Your task to perform on an android device: delete browsing data in the chrome app Image 0: 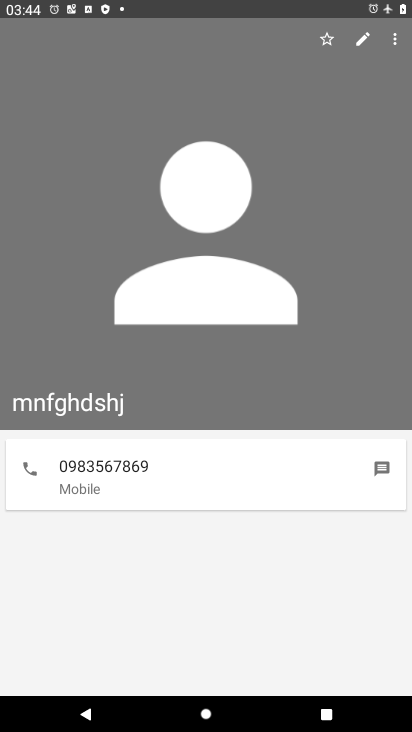
Step 0: press home button
Your task to perform on an android device: delete browsing data in the chrome app Image 1: 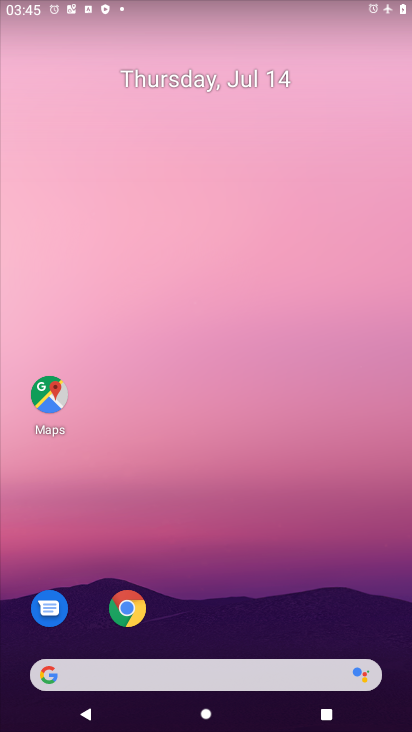
Step 1: click (128, 609)
Your task to perform on an android device: delete browsing data in the chrome app Image 2: 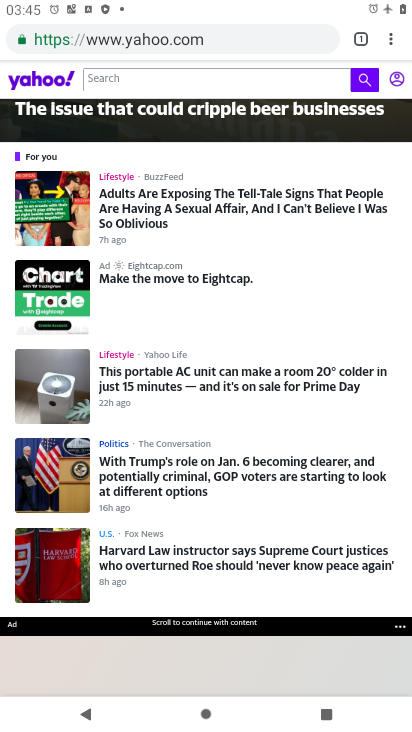
Step 2: click (391, 42)
Your task to perform on an android device: delete browsing data in the chrome app Image 3: 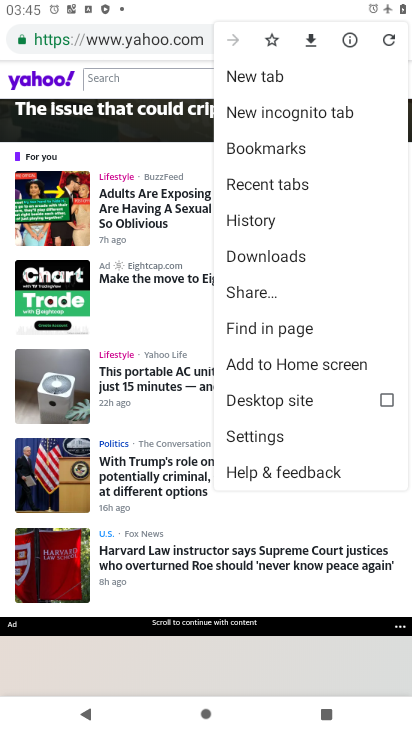
Step 3: click (254, 222)
Your task to perform on an android device: delete browsing data in the chrome app Image 4: 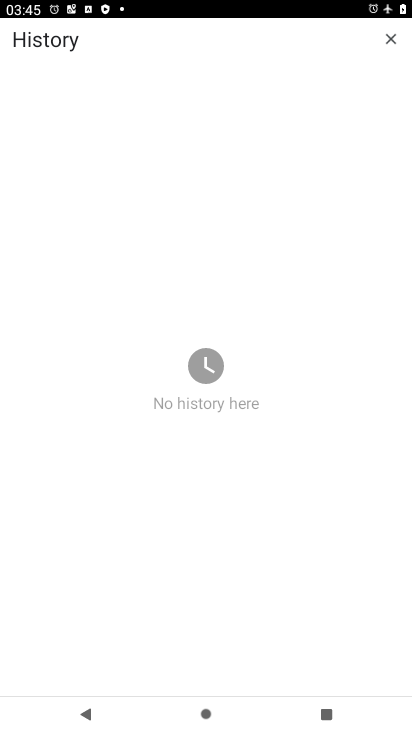
Step 4: task complete